Your task to perform on an android device: move a message to another label in the gmail app Image 0: 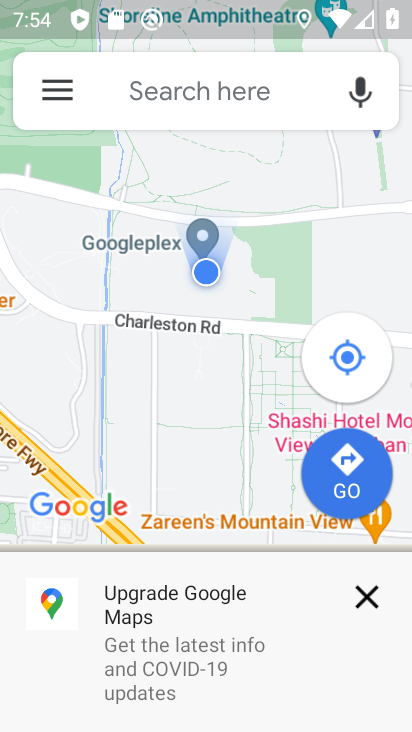
Step 0: press home button
Your task to perform on an android device: move a message to another label in the gmail app Image 1: 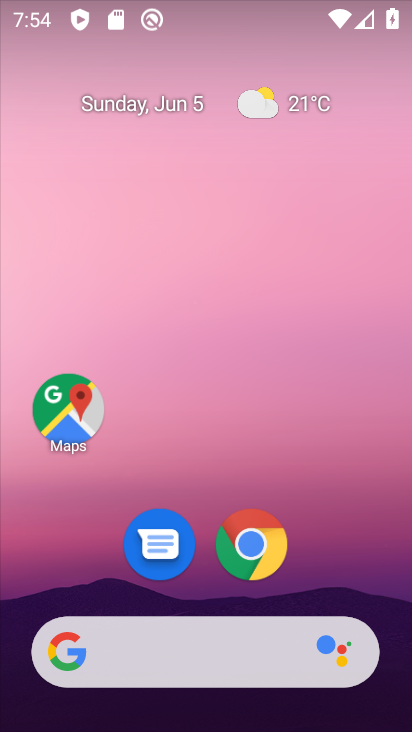
Step 1: drag from (360, 325) to (352, 118)
Your task to perform on an android device: move a message to another label in the gmail app Image 2: 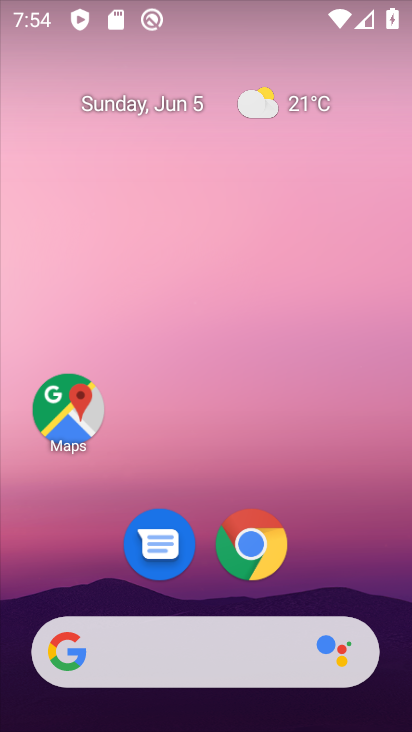
Step 2: drag from (401, 652) to (389, 344)
Your task to perform on an android device: move a message to another label in the gmail app Image 3: 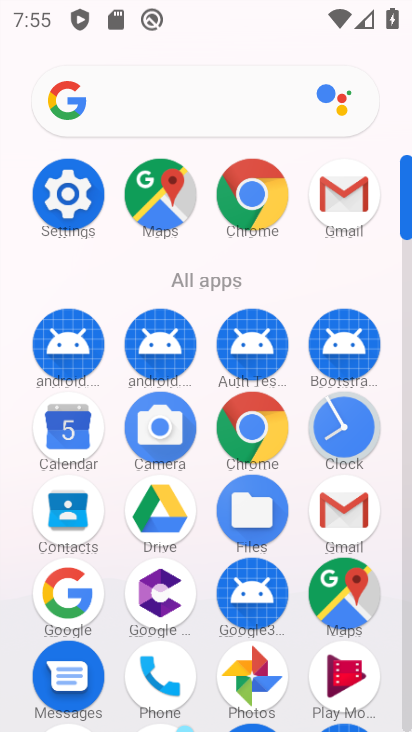
Step 3: click (344, 197)
Your task to perform on an android device: move a message to another label in the gmail app Image 4: 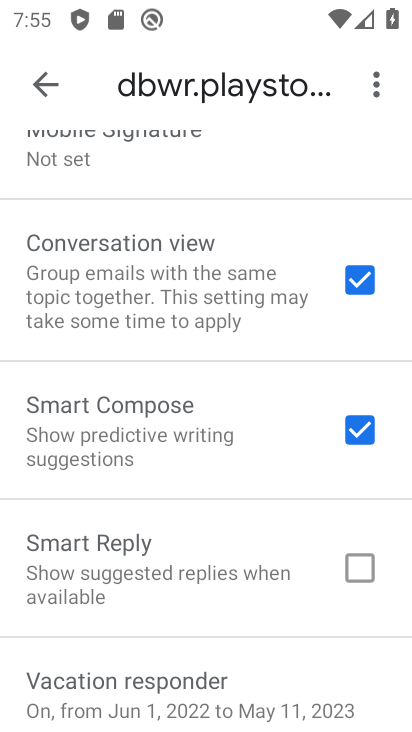
Step 4: click (36, 72)
Your task to perform on an android device: move a message to another label in the gmail app Image 5: 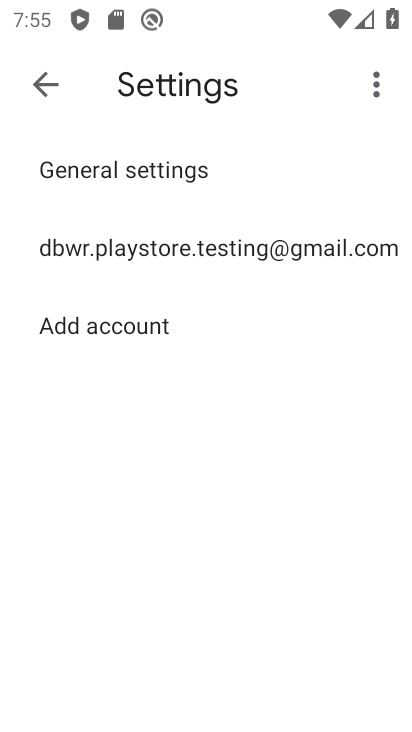
Step 5: click (43, 81)
Your task to perform on an android device: move a message to another label in the gmail app Image 6: 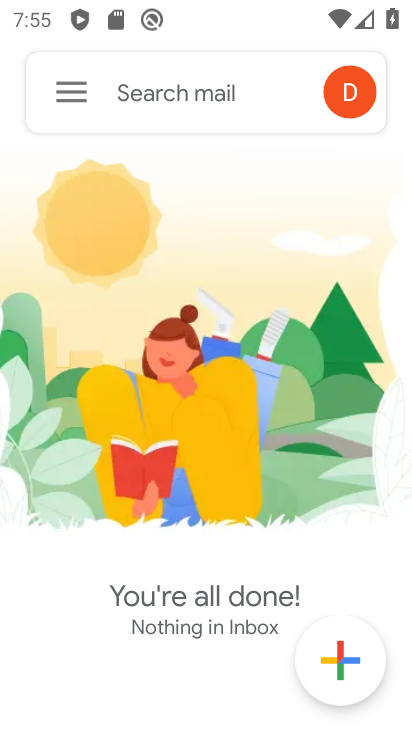
Step 6: click (73, 93)
Your task to perform on an android device: move a message to another label in the gmail app Image 7: 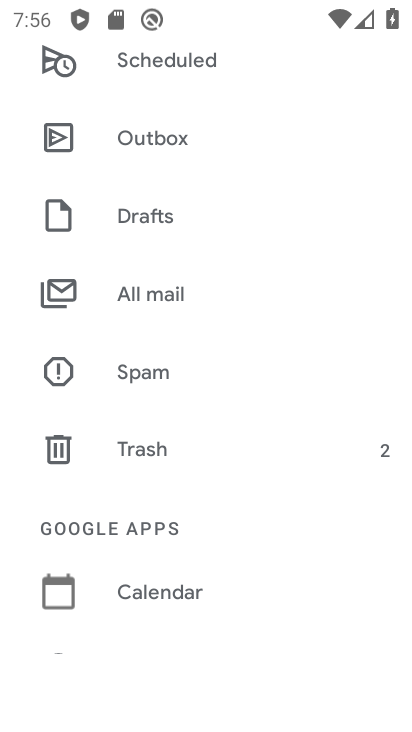
Step 7: drag from (250, 105) to (266, 667)
Your task to perform on an android device: move a message to another label in the gmail app Image 8: 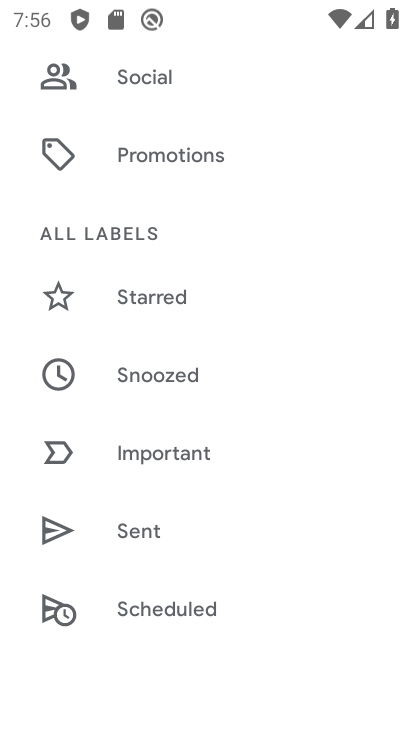
Step 8: drag from (263, 99) to (310, 718)
Your task to perform on an android device: move a message to another label in the gmail app Image 9: 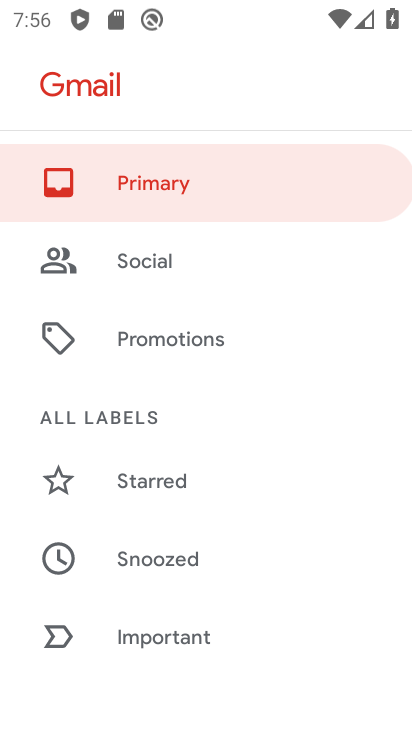
Step 9: click (254, 200)
Your task to perform on an android device: move a message to another label in the gmail app Image 10: 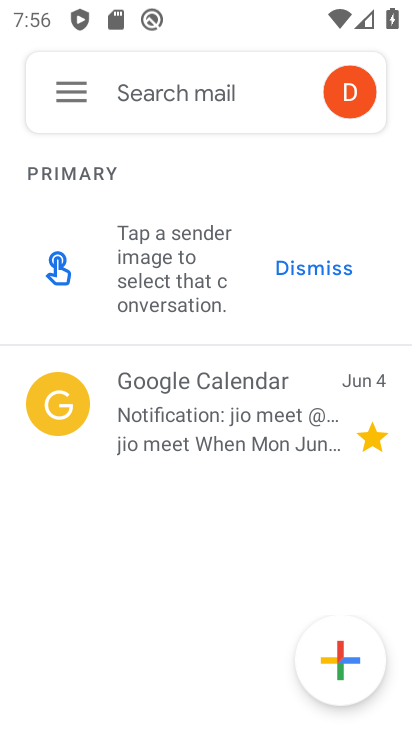
Step 10: task complete